Your task to perform on an android device: open app "Walmart Shopping & Grocery" Image 0: 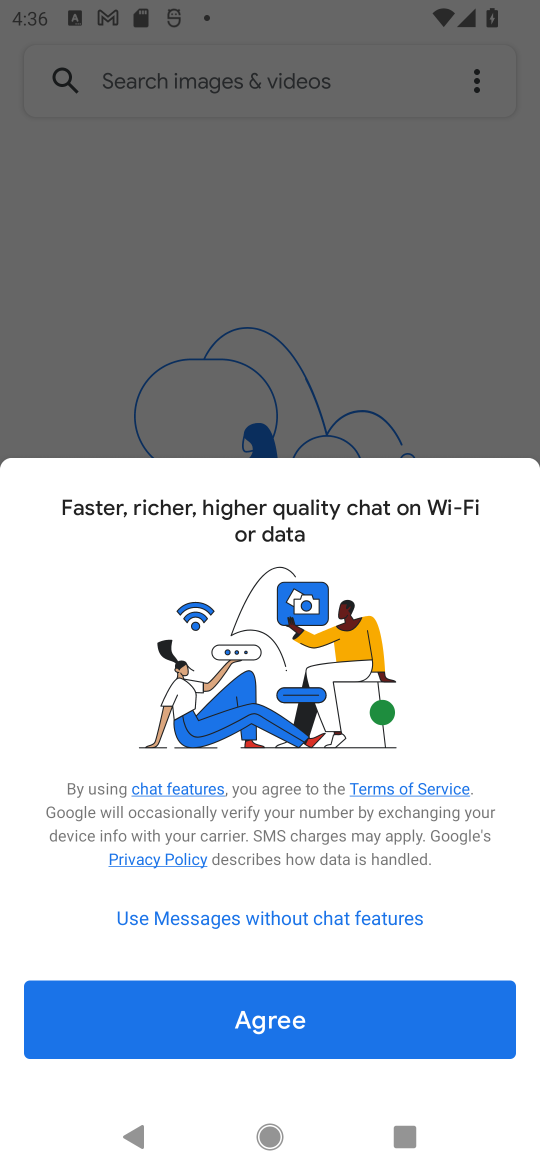
Step 0: press home button
Your task to perform on an android device: open app "Walmart Shopping & Grocery" Image 1: 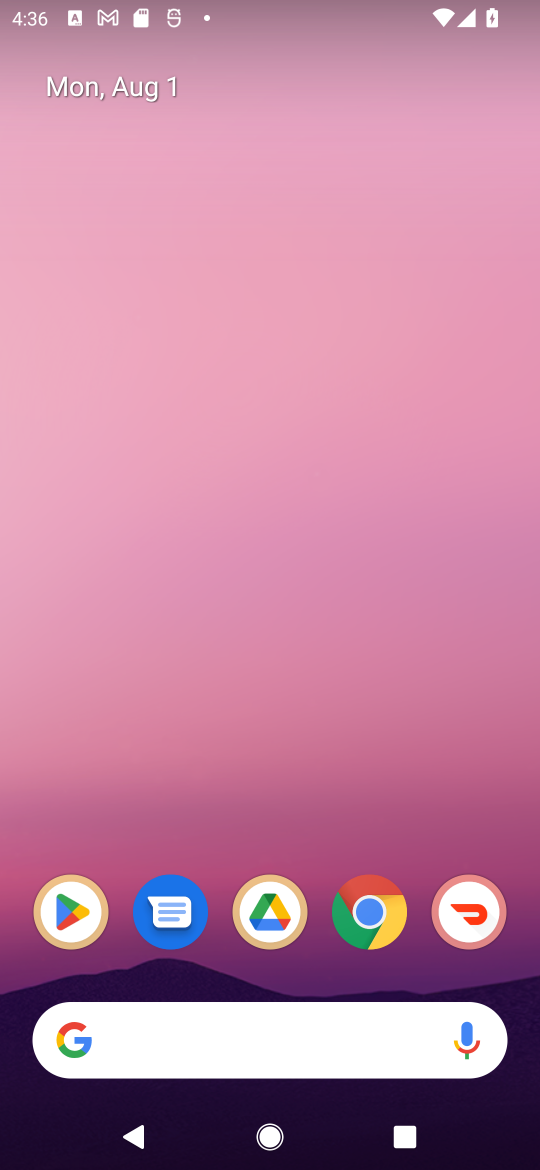
Step 1: click (81, 919)
Your task to perform on an android device: open app "Walmart Shopping & Grocery" Image 2: 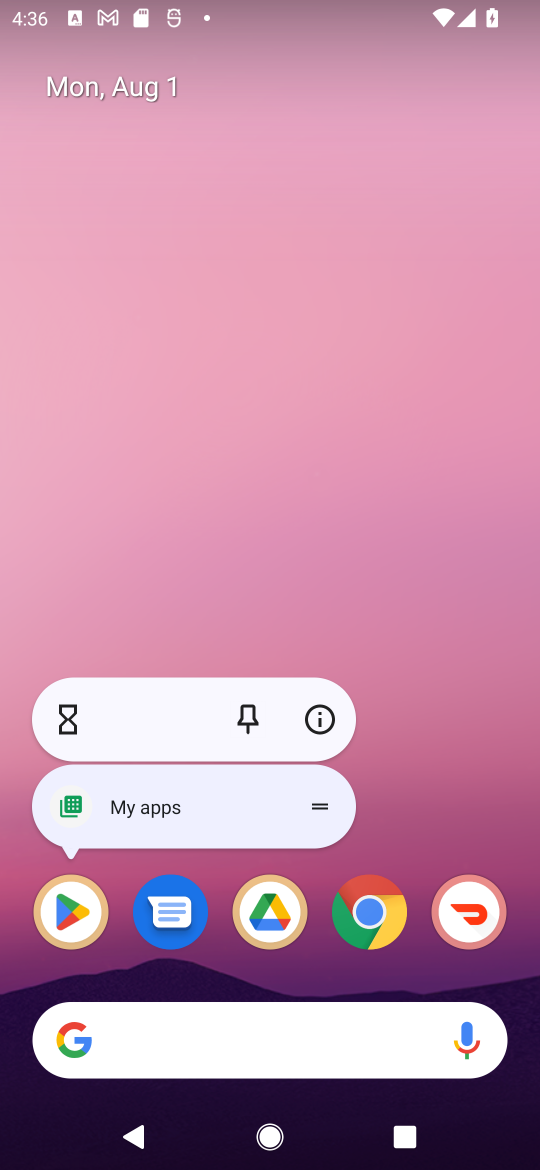
Step 2: click (59, 912)
Your task to perform on an android device: open app "Walmart Shopping & Grocery" Image 3: 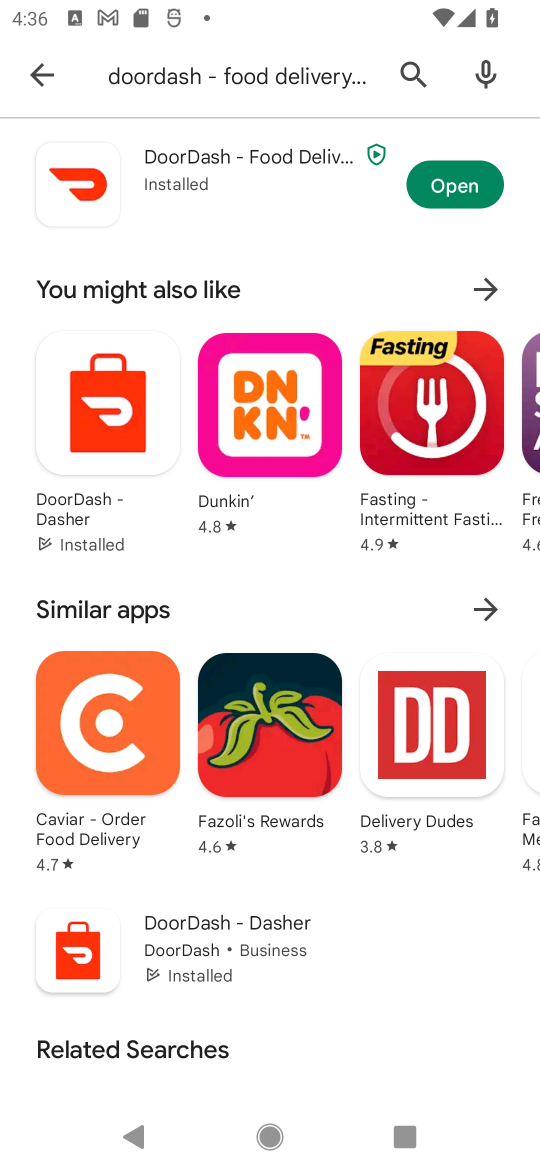
Step 3: click (413, 72)
Your task to perform on an android device: open app "Walmart Shopping & Grocery" Image 4: 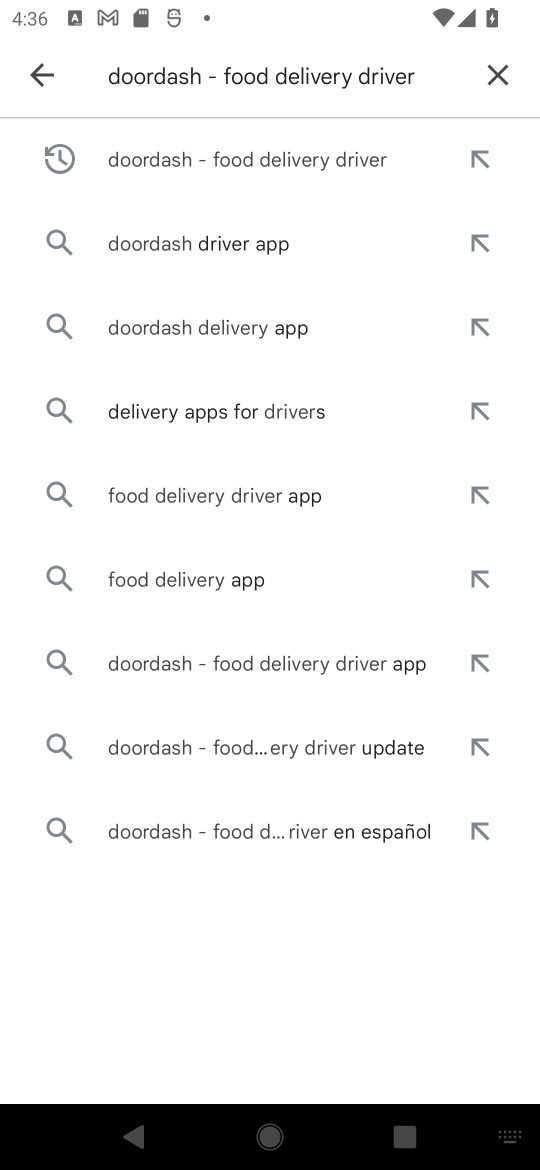
Step 4: click (515, 72)
Your task to perform on an android device: open app "Walmart Shopping & Grocery" Image 5: 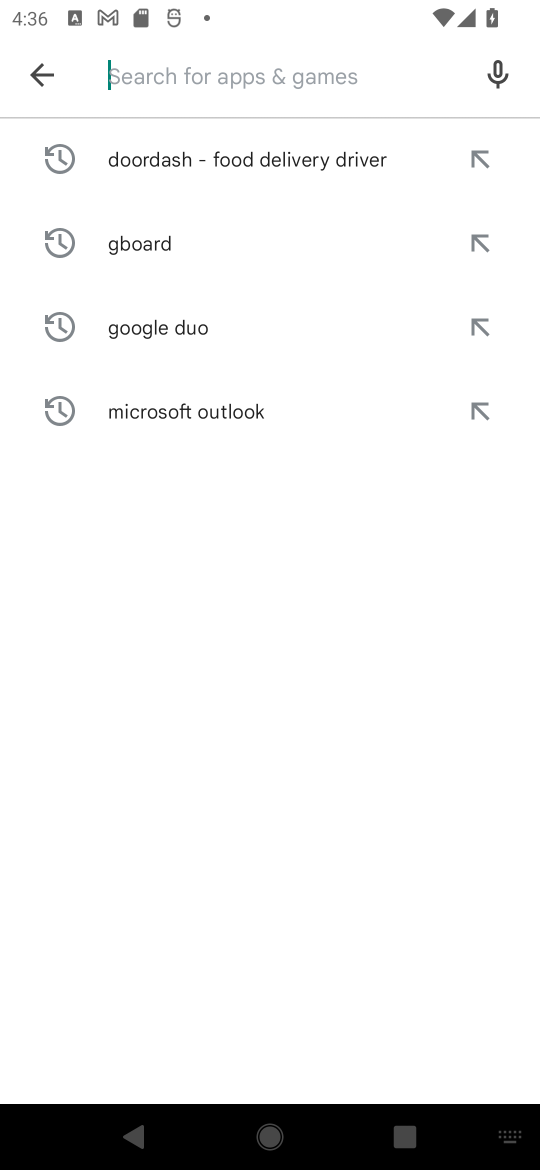
Step 5: type "Walmart Shopping & Grocery"
Your task to perform on an android device: open app "Walmart Shopping & Grocery" Image 6: 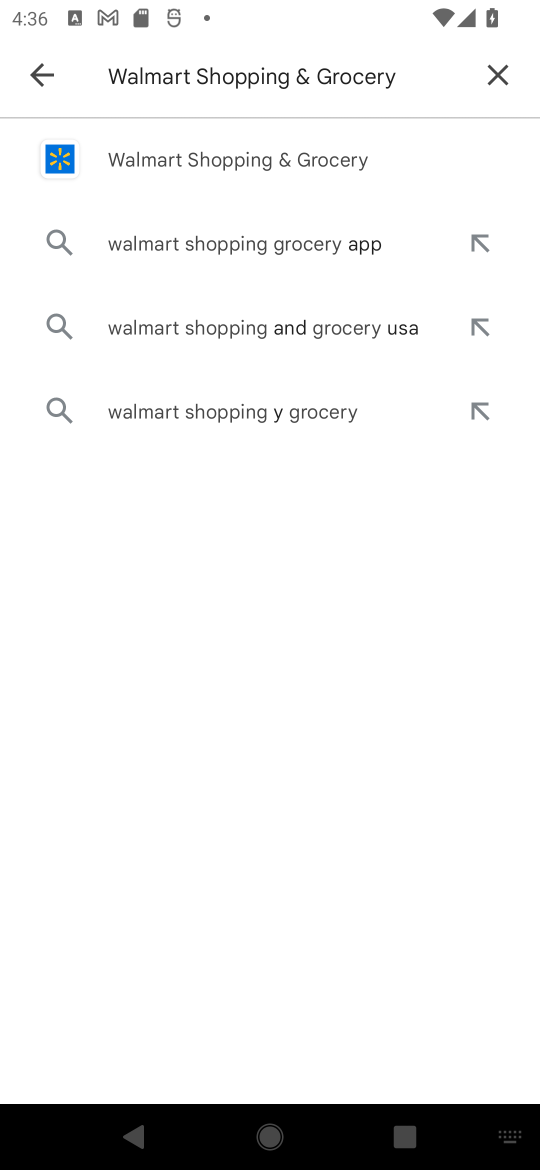
Step 6: click (245, 170)
Your task to perform on an android device: open app "Walmart Shopping & Grocery" Image 7: 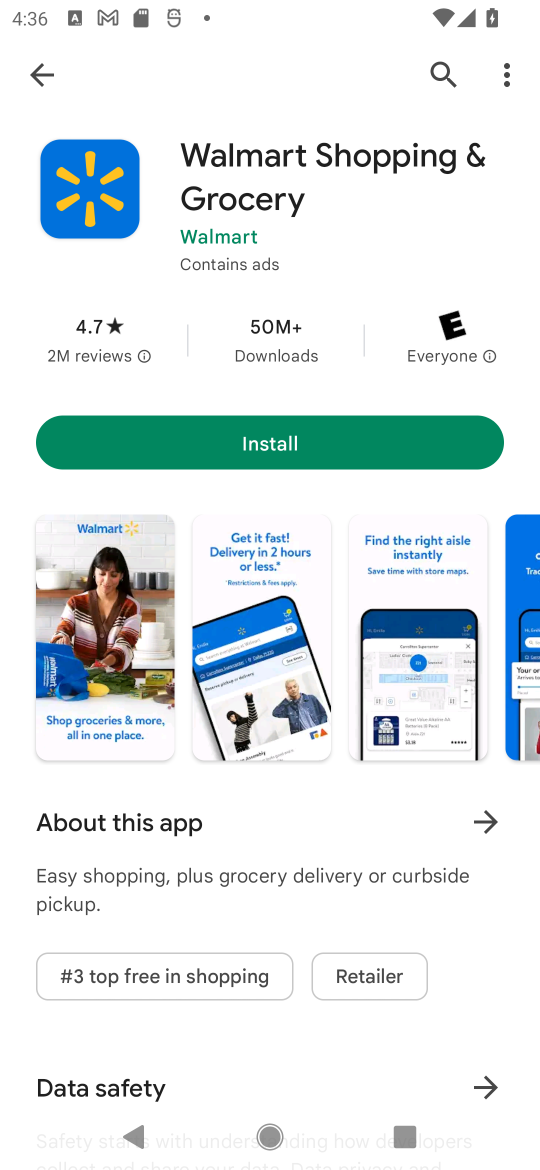
Step 7: task complete